Your task to perform on an android device: Open Chrome and go to the settings page Image 0: 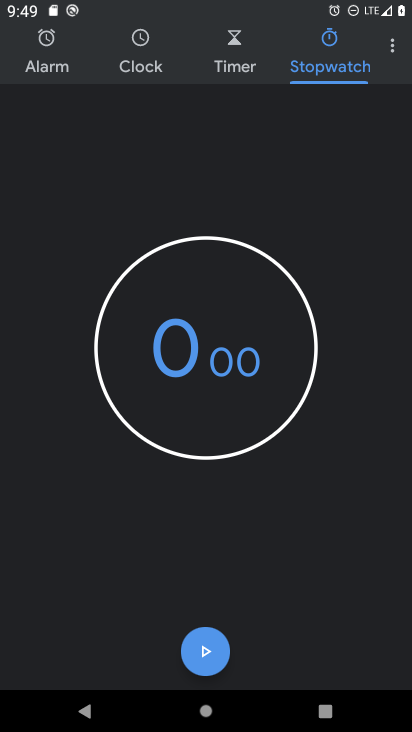
Step 0: press home button
Your task to perform on an android device: Open Chrome and go to the settings page Image 1: 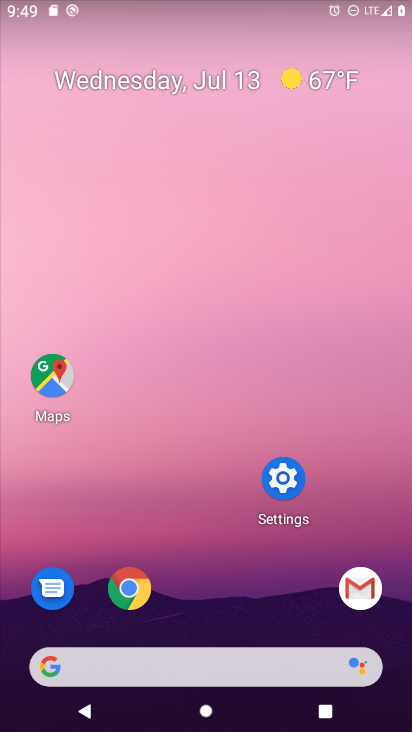
Step 1: click (150, 578)
Your task to perform on an android device: Open Chrome and go to the settings page Image 2: 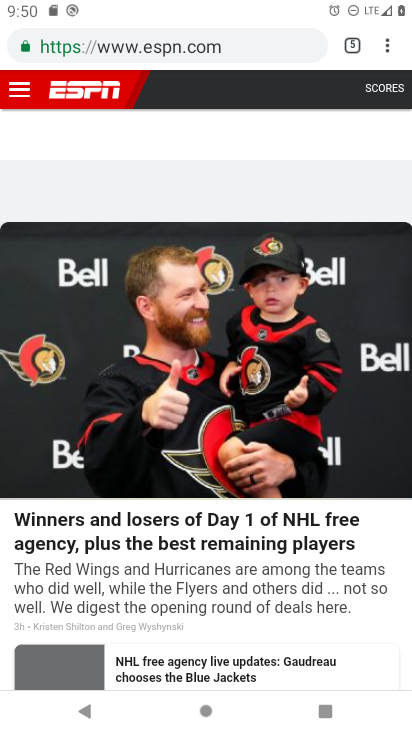
Step 2: click (379, 52)
Your task to perform on an android device: Open Chrome and go to the settings page Image 3: 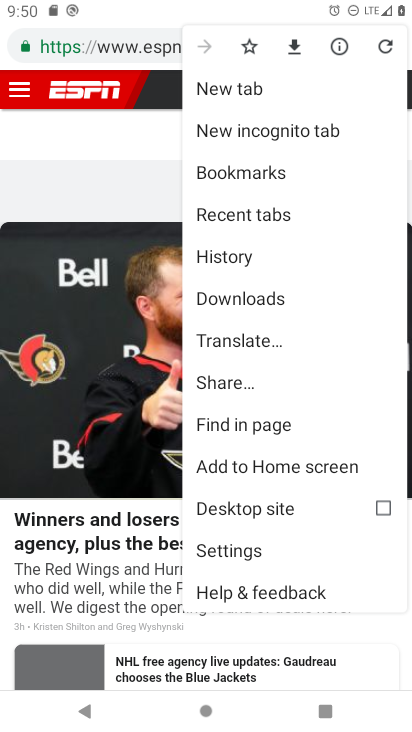
Step 3: click (262, 554)
Your task to perform on an android device: Open Chrome and go to the settings page Image 4: 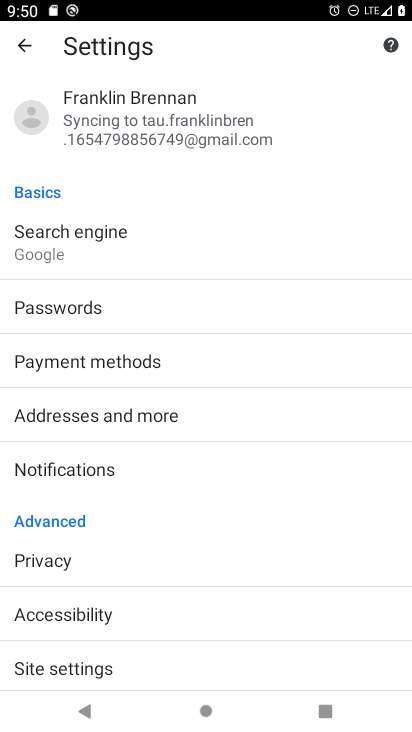
Step 4: task complete